Your task to perform on an android device: remove spam from my inbox in the gmail app Image 0: 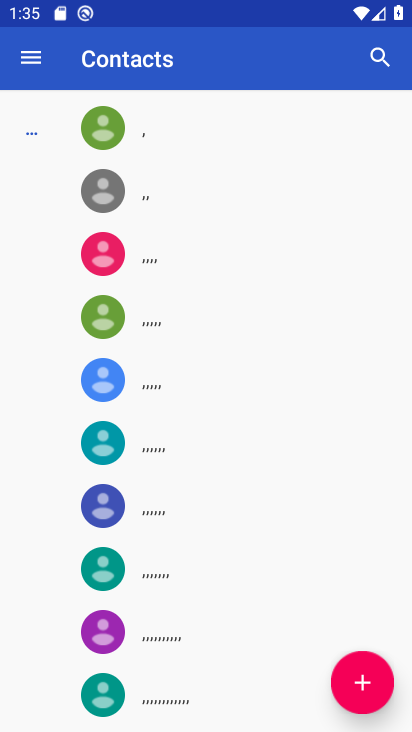
Step 0: press home button
Your task to perform on an android device: remove spam from my inbox in the gmail app Image 1: 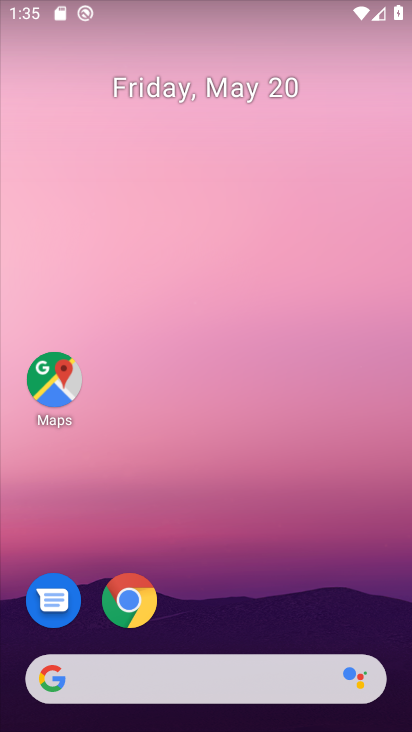
Step 1: drag from (314, 459) to (189, 9)
Your task to perform on an android device: remove spam from my inbox in the gmail app Image 2: 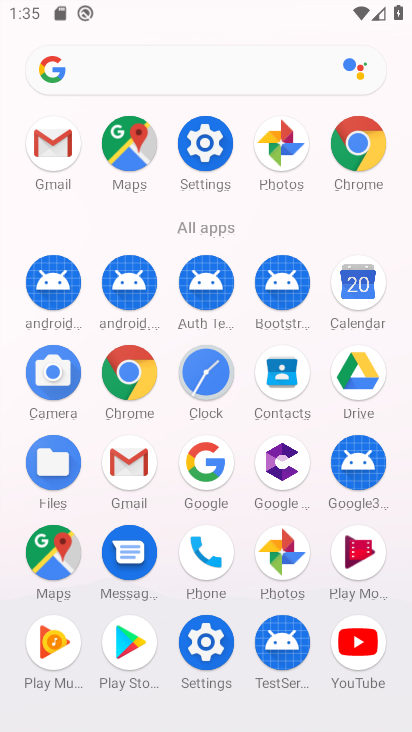
Step 2: click (129, 462)
Your task to perform on an android device: remove spam from my inbox in the gmail app Image 3: 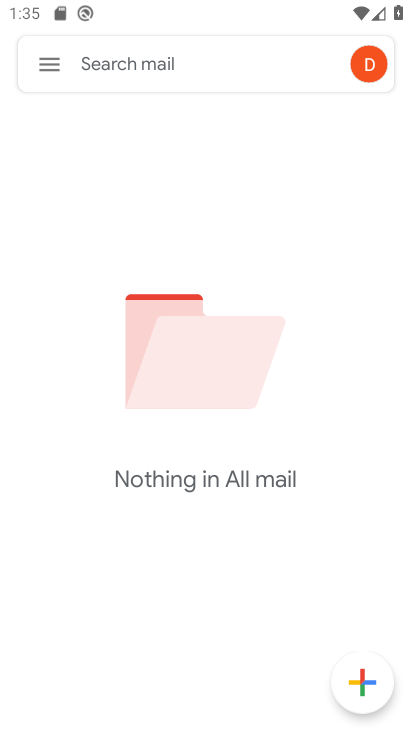
Step 3: click (54, 70)
Your task to perform on an android device: remove spam from my inbox in the gmail app Image 4: 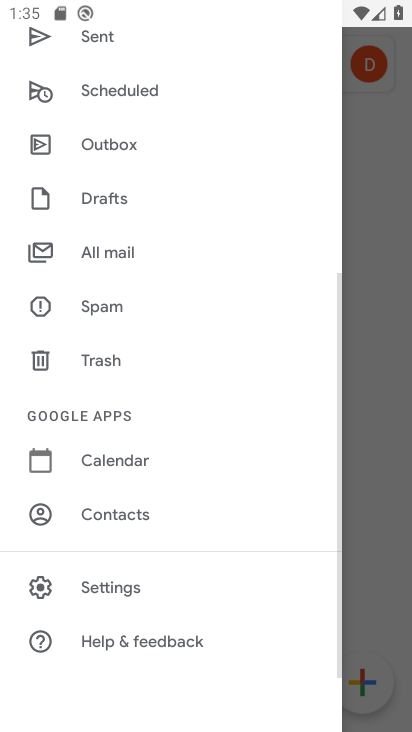
Step 4: click (127, 303)
Your task to perform on an android device: remove spam from my inbox in the gmail app Image 5: 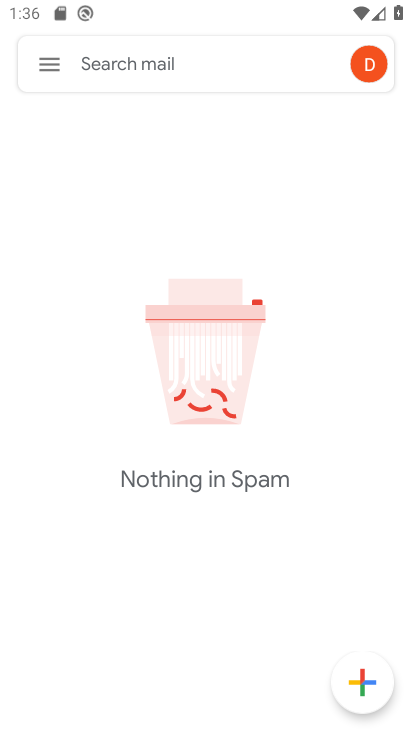
Step 5: press home button
Your task to perform on an android device: remove spam from my inbox in the gmail app Image 6: 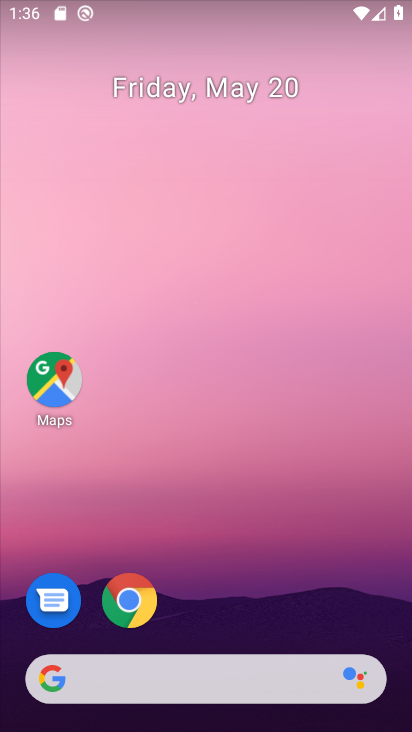
Step 6: drag from (305, 528) to (157, 35)
Your task to perform on an android device: remove spam from my inbox in the gmail app Image 7: 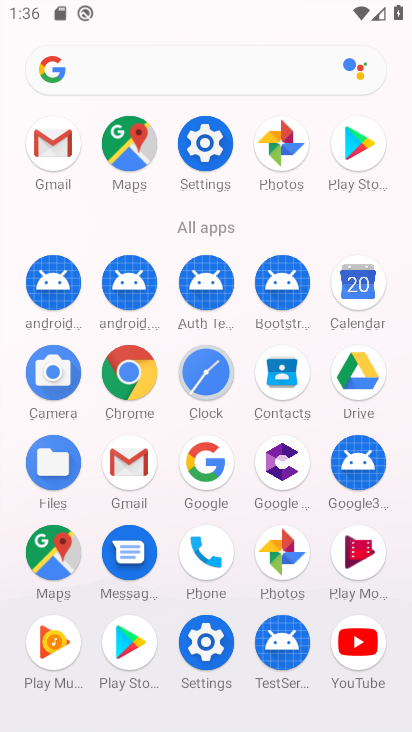
Step 7: click (138, 464)
Your task to perform on an android device: remove spam from my inbox in the gmail app Image 8: 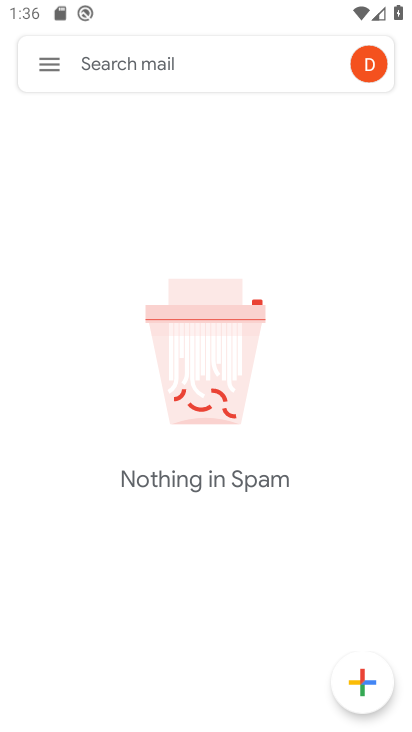
Step 8: click (49, 70)
Your task to perform on an android device: remove spam from my inbox in the gmail app Image 9: 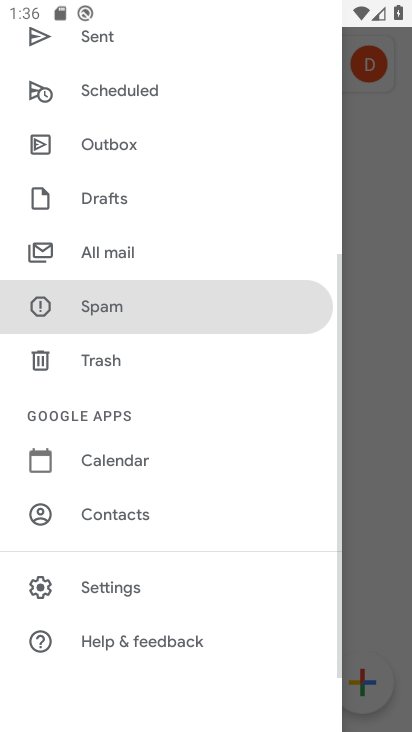
Step 9: click (157, 306)
Your task to perform on an android device: remove spam from my inbox in the gmail app Image 10: 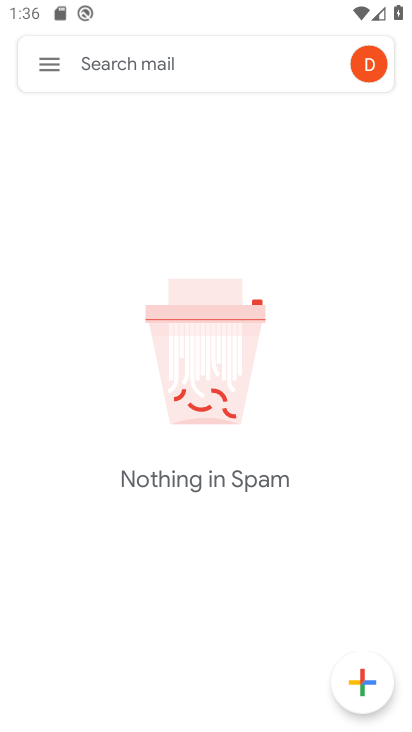
Step 10: task complete